Your task to perform on an android device: Open settings Image 0: 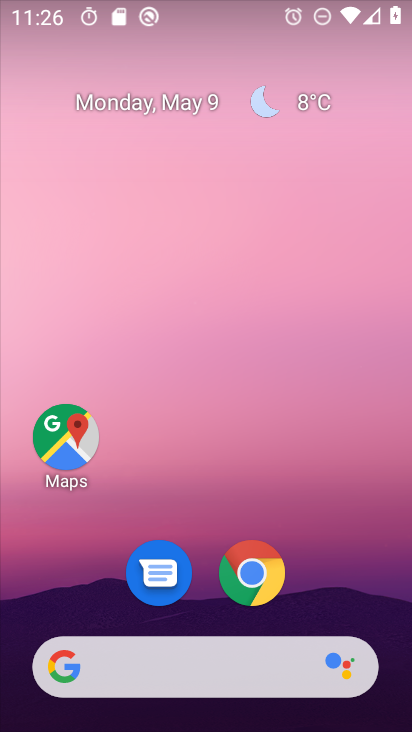
Step 0: drag from (364, 567) to (380, 132)
Your task to perform on an android device: Open settings Image 1: 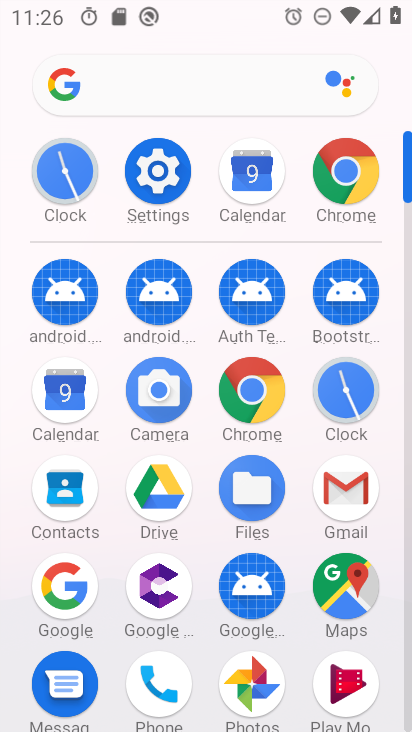
Step 1: click (160, 177)
Your task to perform on an android device: Open settings Image 2: 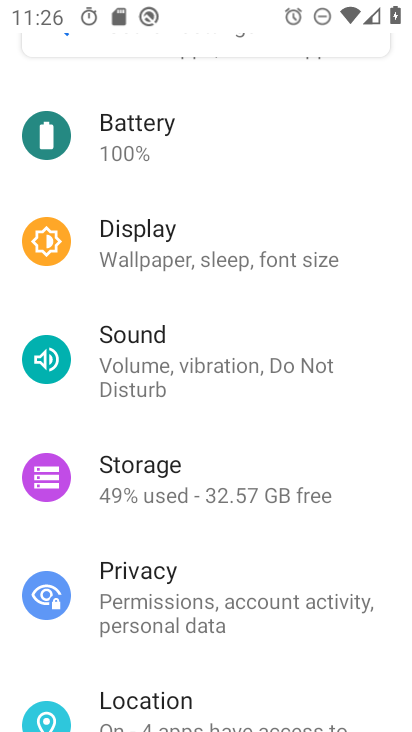
Step 2: task complete